Your task to perform on an android device: Open the Play Movies app and select the watchlist tab. Image 0: 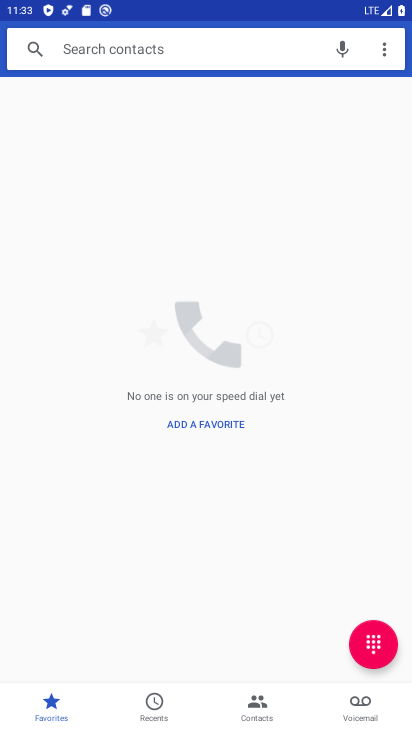
Step 0: press home button
Your task to perform on an android device: Open the Play Movies app and select the watchlist tab. Image 1: 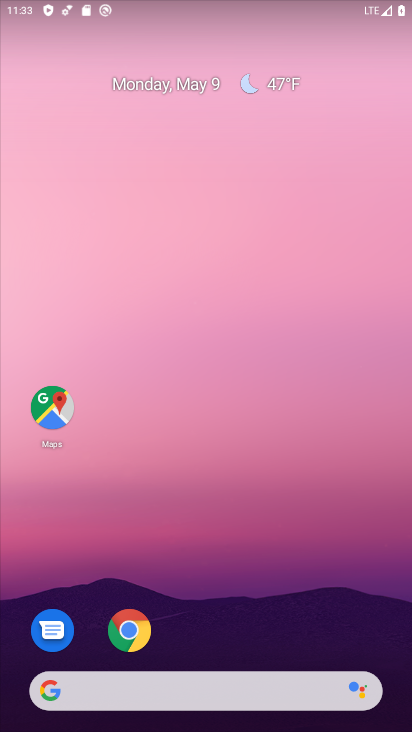
Step 1: drag from (178, 691) to (346, 206)
Your task to perform on an android device: Open the Play Movies app and select the watchlist tab. Image 2: 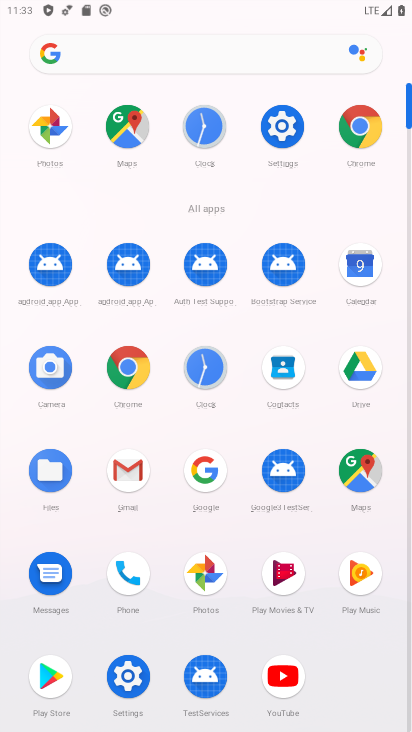
Step 2: click (281, 586)
Your task to perform on an android device: Open the Play Movies app and select the watchlist tab. Image 3: 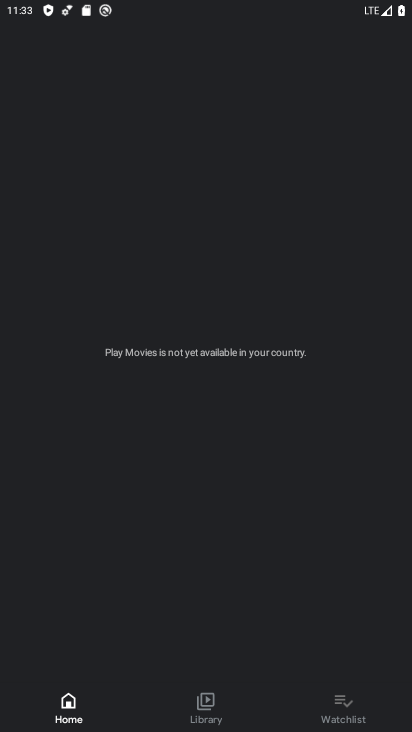
Step 3: click (351, 706)
Your task to perform on an android device: Open the Play Movies app and select the watchlist tab. Image 4: 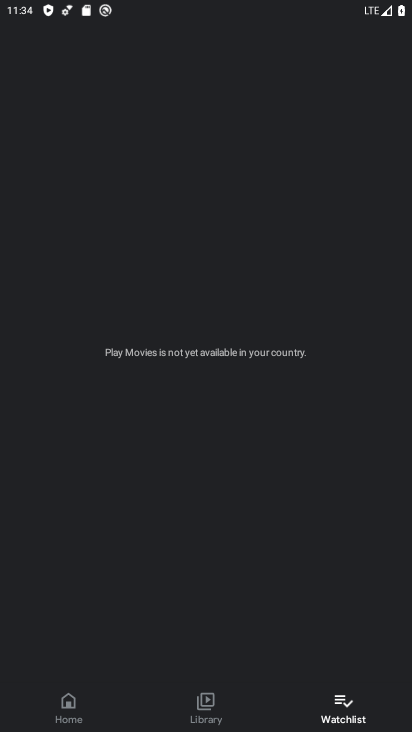
Step 4: task complete